Your task to perform on an android device: Open calendar and show me the fourth week of next month Image 0: 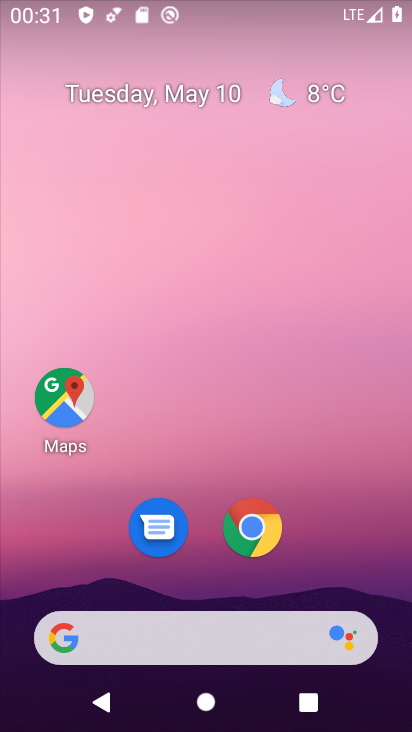
Step 0: drag from (339, 588) to (115, 146)
Your task to perform on an android device: Open calendar and show me the fourth week of next month Image 1: 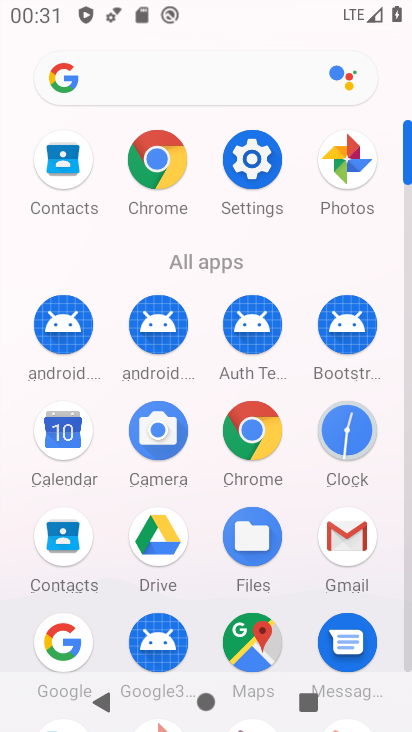
Step 1: click (68, 437)
Your task to perform on an android device: Open calendar and show me the fourth week of next month Image 2: 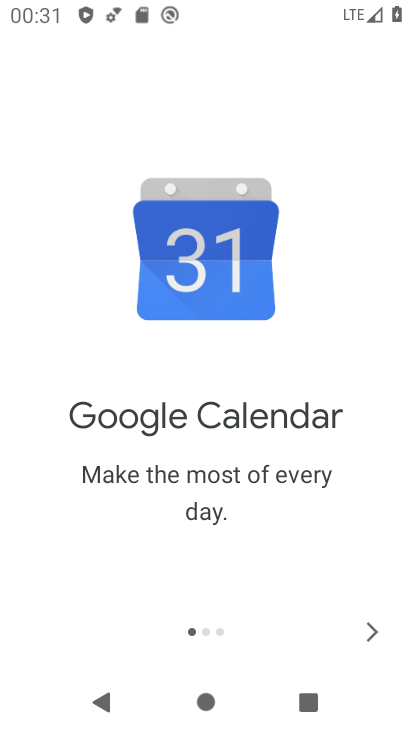
Step 2: click (352, 629)
Your task to perform on an android device: Open calendar and show me the fourth week of next month Image 3: 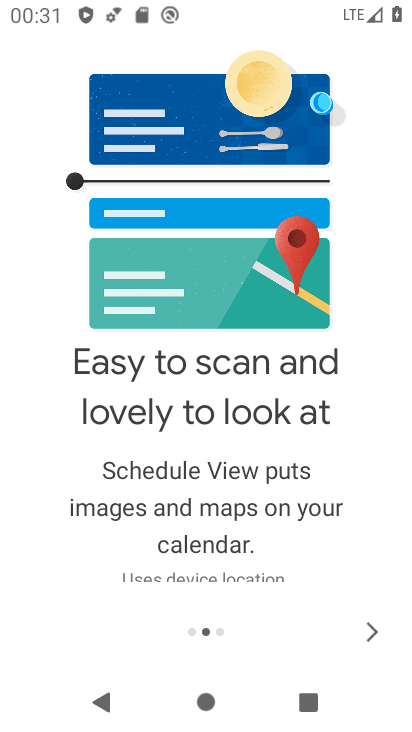
Step 3: click (370, 636)
Your task to perform on an android device: Open calendar and show me the fourth week of next month Image 4: 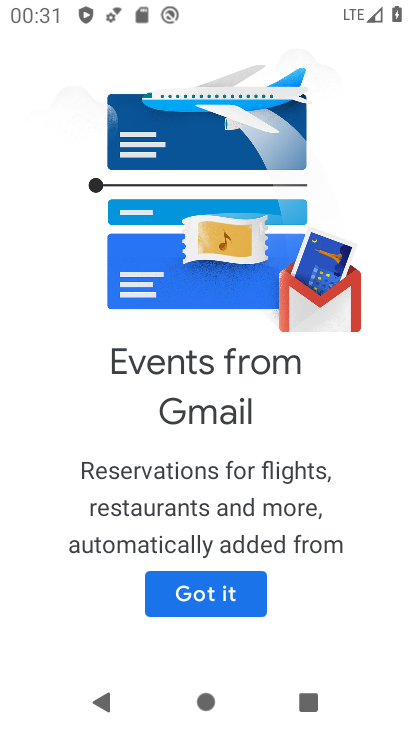
Step 4: click (201, 607)
Your task to perform on an android device: Open calendar and show me the fourth week of next month Image 5: 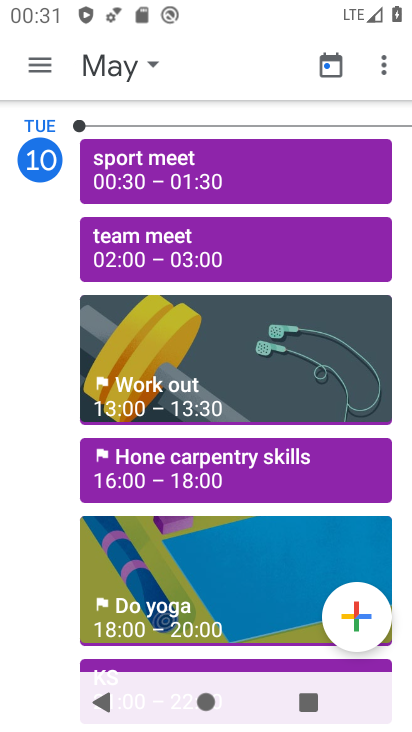
Step 5: click (127, 61)
Your task to perform on an android device: Open calendar and show me the fourth week of next month Image 6: 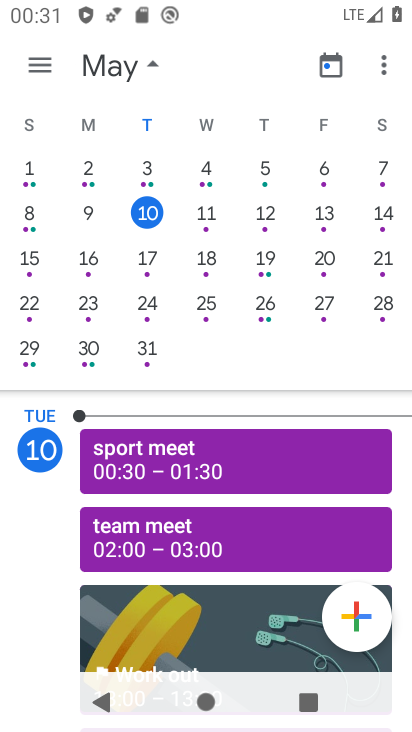
Step 6: drag from (274, 284) to (13, 294)
Your task to perform on an android device: Open calendar and show me the fourth week of next month Image 7: 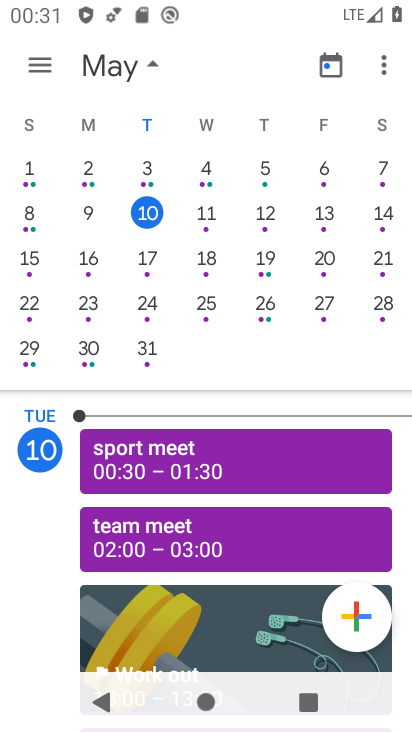
Step 7: drag from (379, 277) to (8, 271)
Your task to perform on an android device: Open calendar and show me the fourth week of next month Image 8: 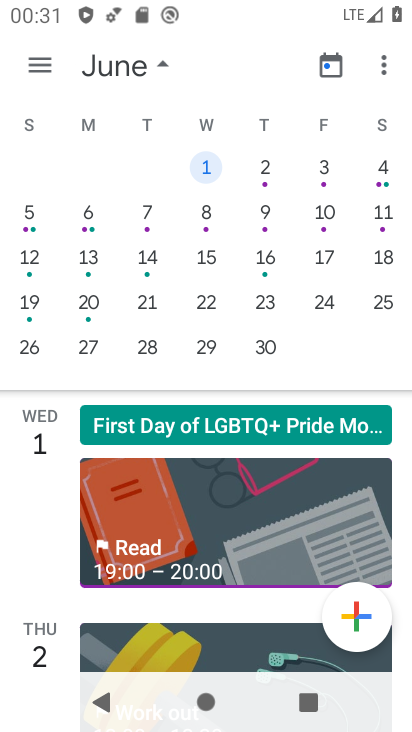
Step 8: click (30, 304)
Your task to perform on an android device: Open calendar and show me the fourth week of next month Image 9: 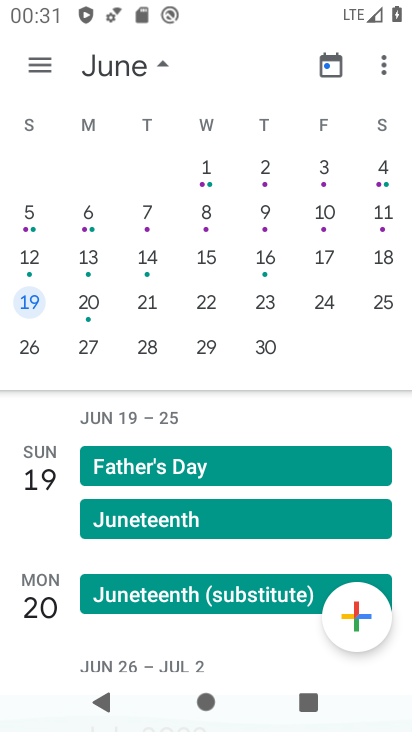
Step 9: click (50, 63)
Your task to perform on an android device: Open calendar and show me the fourth week of next month Image 10: 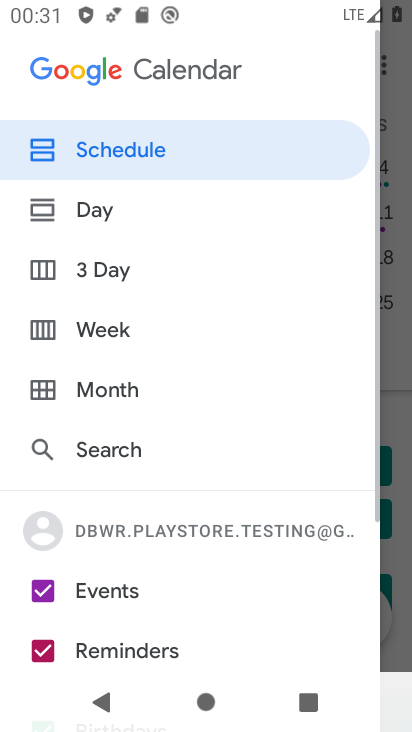
Step 10: click (79, 338)
Your task to perform on an android device: Open calendar and show me the fourth week of next month Image 11: 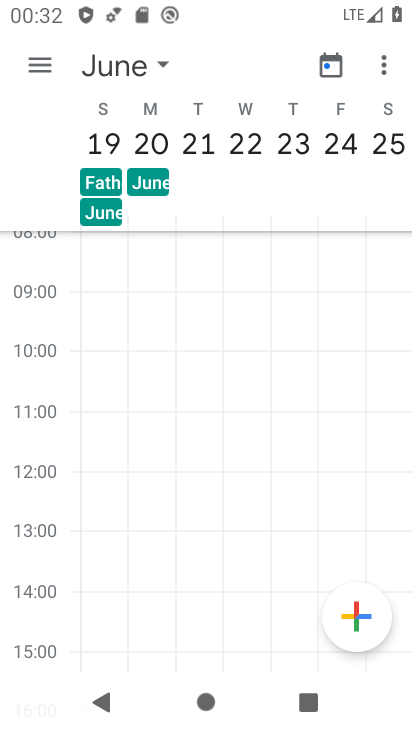
Step 11: task complete